Your task to perform on an android device: What's on my calendar tomorrow? Image 0: 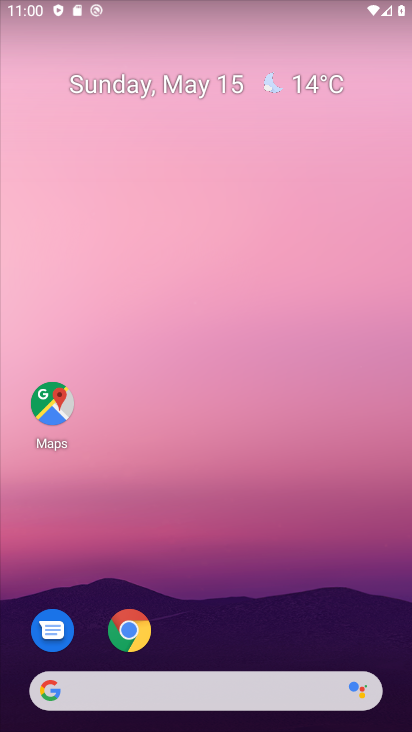
Step 0: drag from (0, 0) to (281, 278)
Your task to perform on an android device: What's on my calendar tomorrow? Image 1: 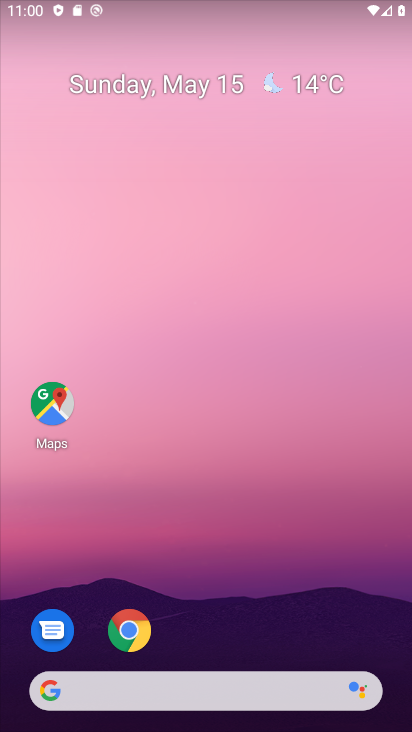
Step 1: drag from (12, 663) to (350, 171)
Your task to perform on an android device: What's on my calendar tomorrow? Image 2: 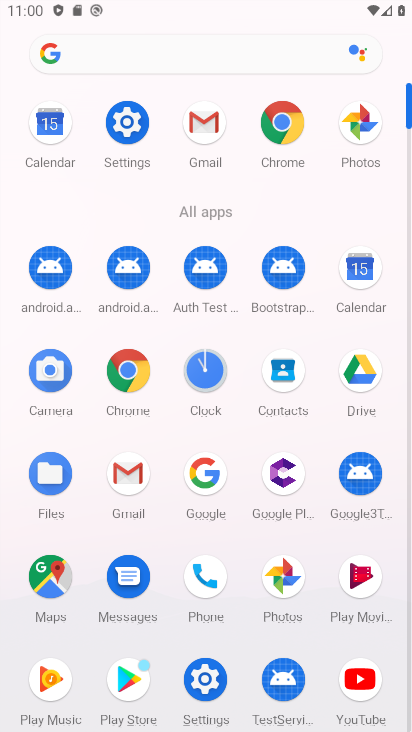
Step 2: click (346, 268)
Your task to perform on an android device: What's on my calendar tomorrow? Image 3: 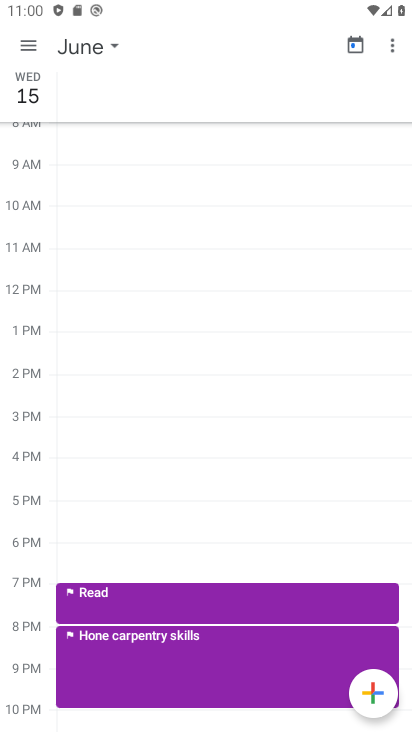
Step 3: click (86, 50)
Your task to perform on an android device: What's on my calendar tomorrow? Image 4: 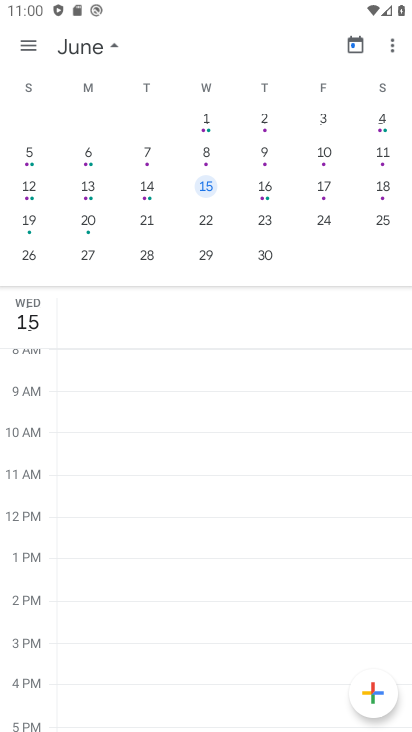
Step 4: click (31, 52)
Your task to perform on an android device: What's on my calendar tomorrow? Image 5: 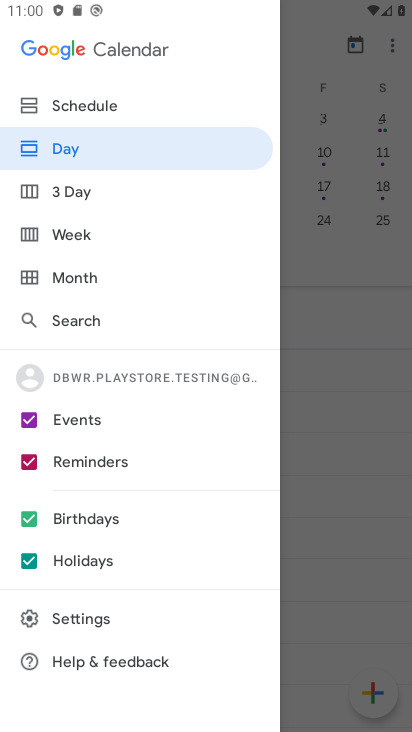
Step 5: click (332, 281)
Your task to perform on an android device: What's on my calendar tomorrow? Image 6: 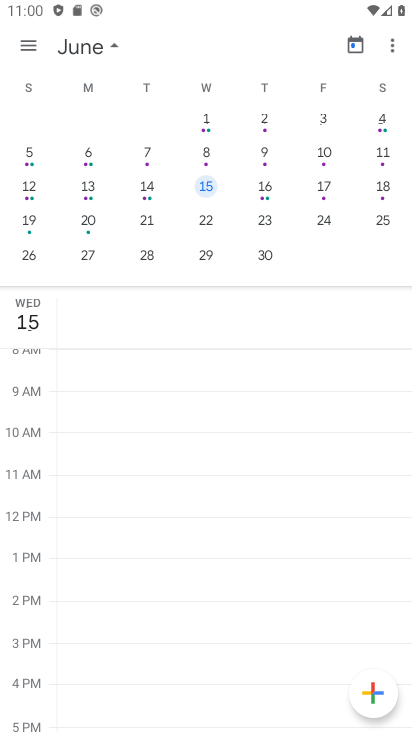
Step 6: drag from (32, 211) to (386, 211)
Your task to perform on an android device: What's on my calendar tomorrow? Image 7: 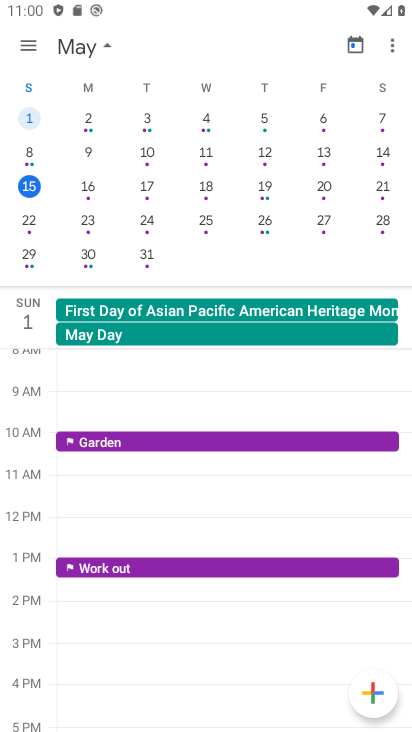
Step 7: click (93, 186)
Your task to perform on an android device: What's on my calendar tomorrow? Image 8: 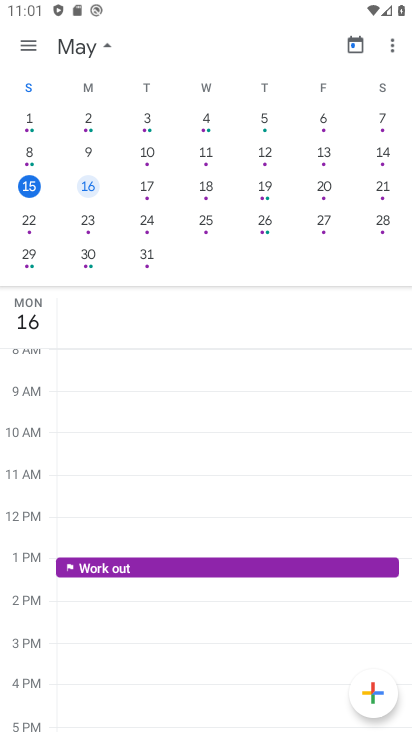
Step 8: task complete